Your task to perform on an android device: Search for "razer blade" on newegg.com, select the first entry, add it to the cart, then select checkout. Image 0: 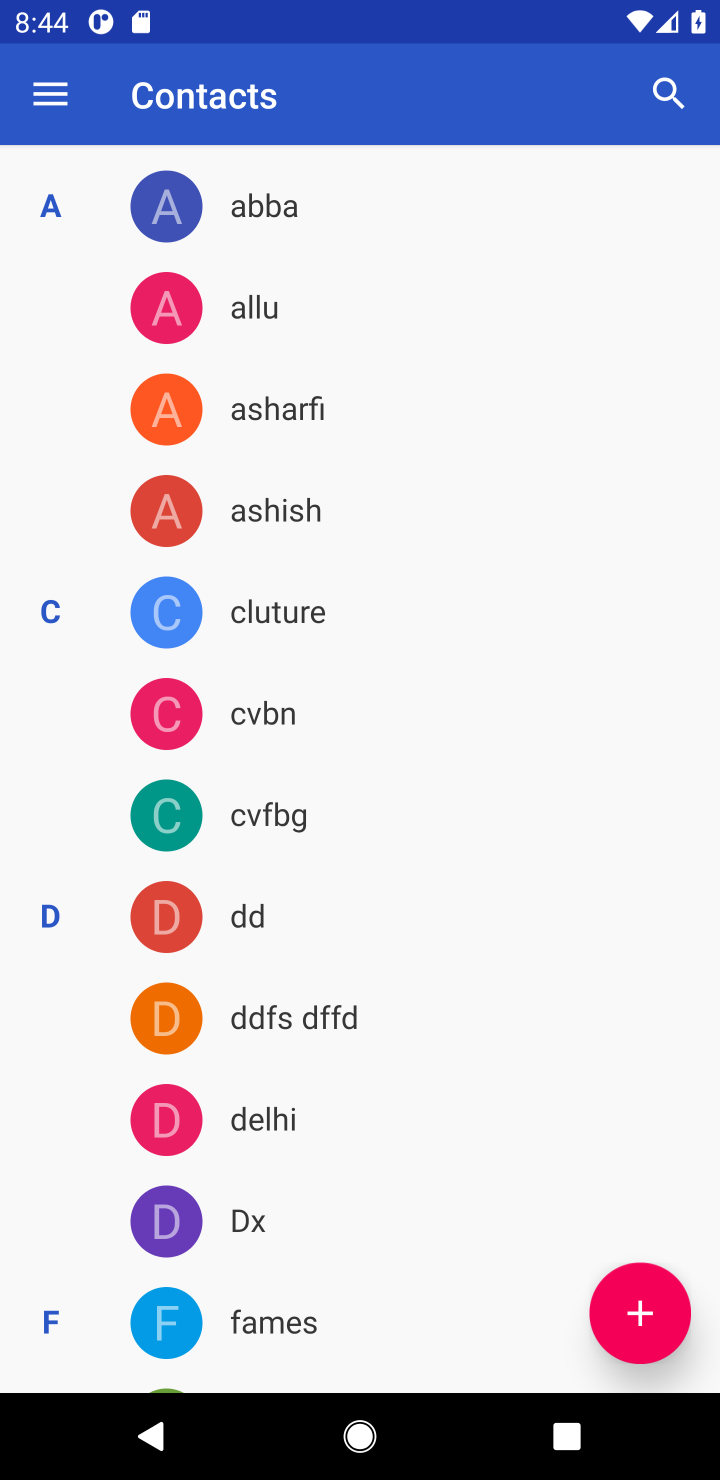
Step 0: press home button
Your task to perform on an android device: Search for "razer blade" on newegg.com, select the first entry, add it to the cart, then select checkout. Image 1: 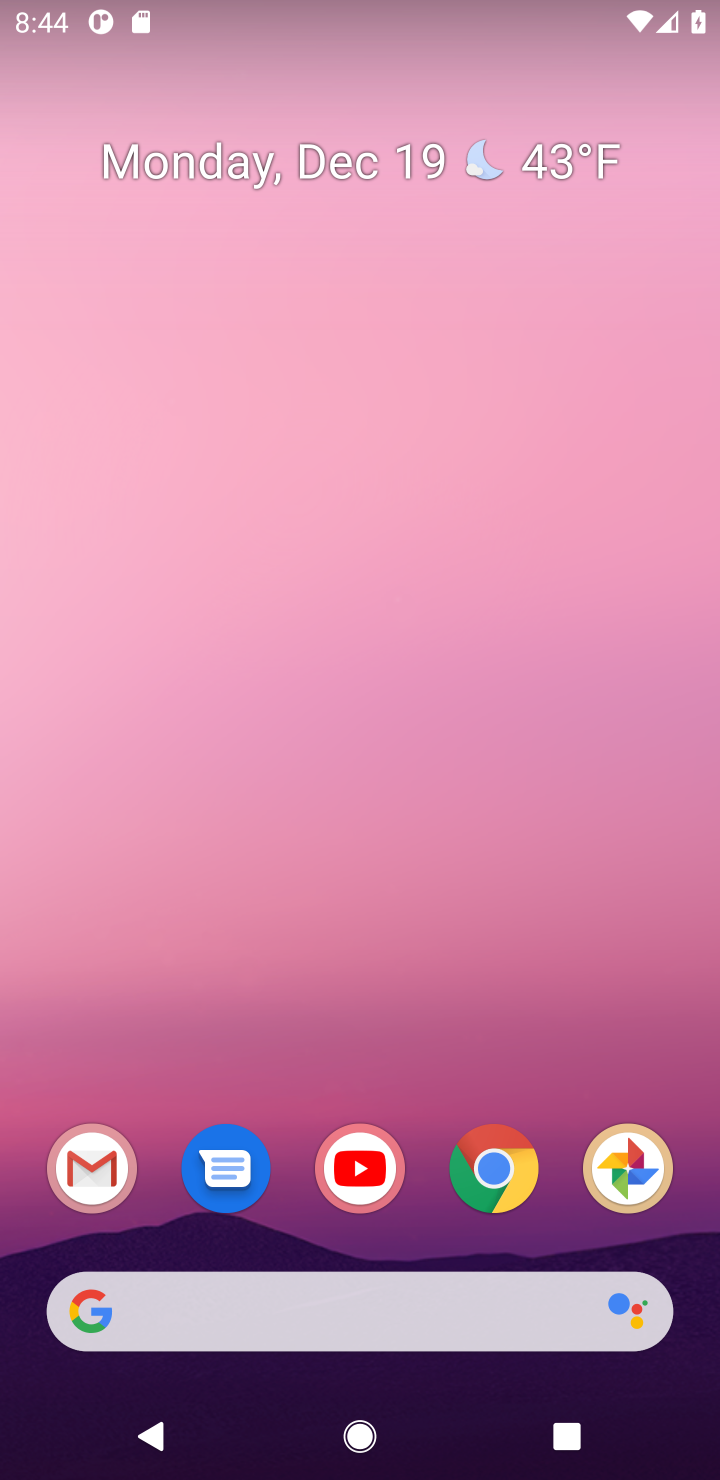
Step 1: click (491, 1191)
Your task to perform on an android device: Search for "razer blade" on newegg.com, select the first entry, add it to the cart, then select checkout. Image 2: 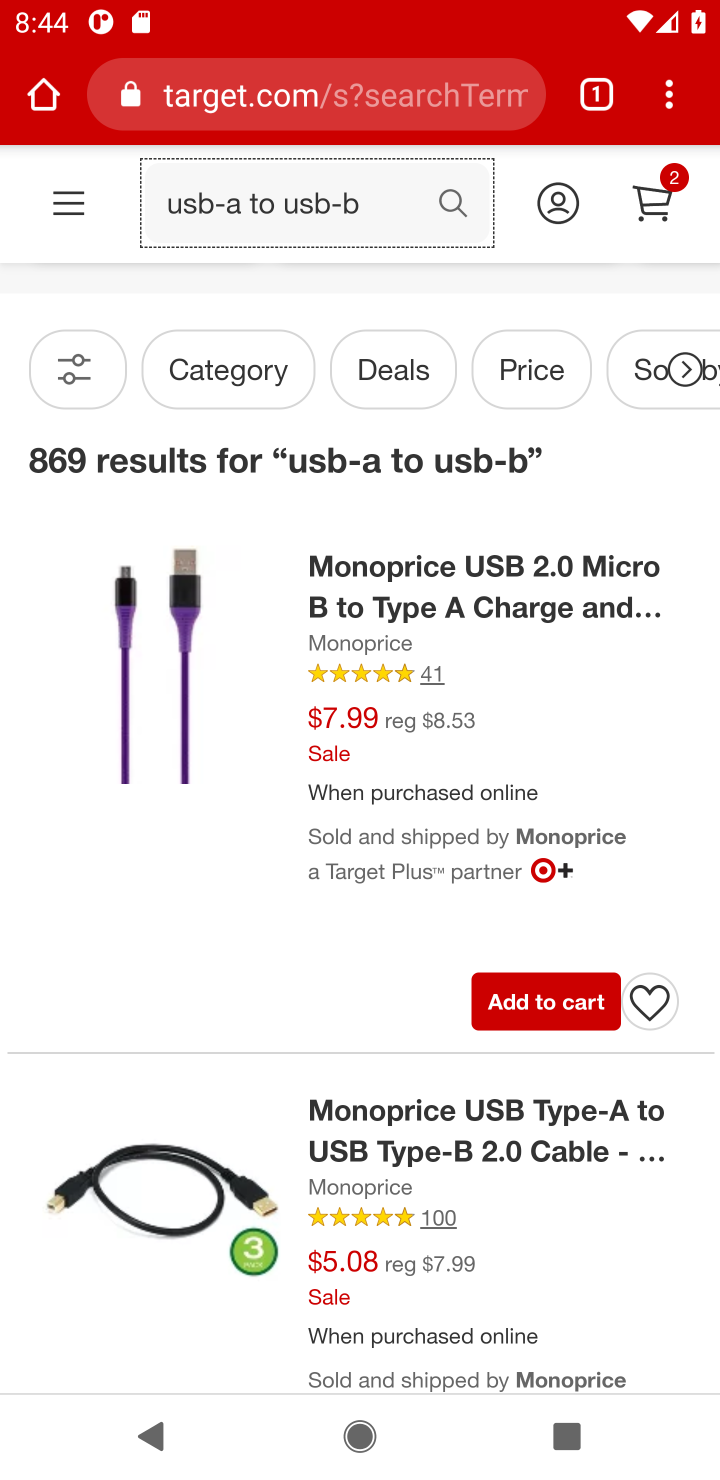
Step 2: click (223, 106)
Your task to perform on an android device: Search for "razer blade" on newegg.com, select the first entry, add it to the cart, then select checkout. Image 3: 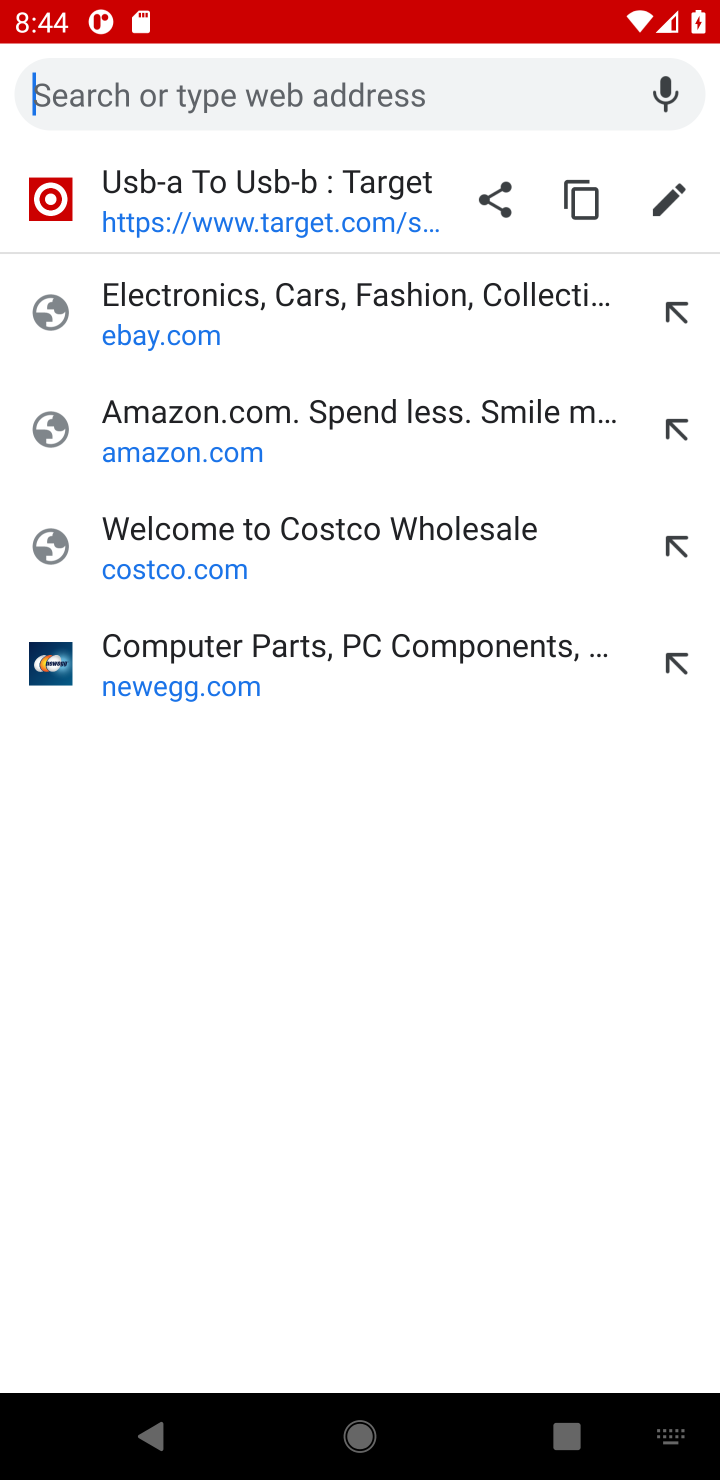
Step 3: click (197, 684)
Your task to perform on an android device: Search for "razer blade" on newegg.com, select the first entry, add it to the cart, then select checkout. Image 4: 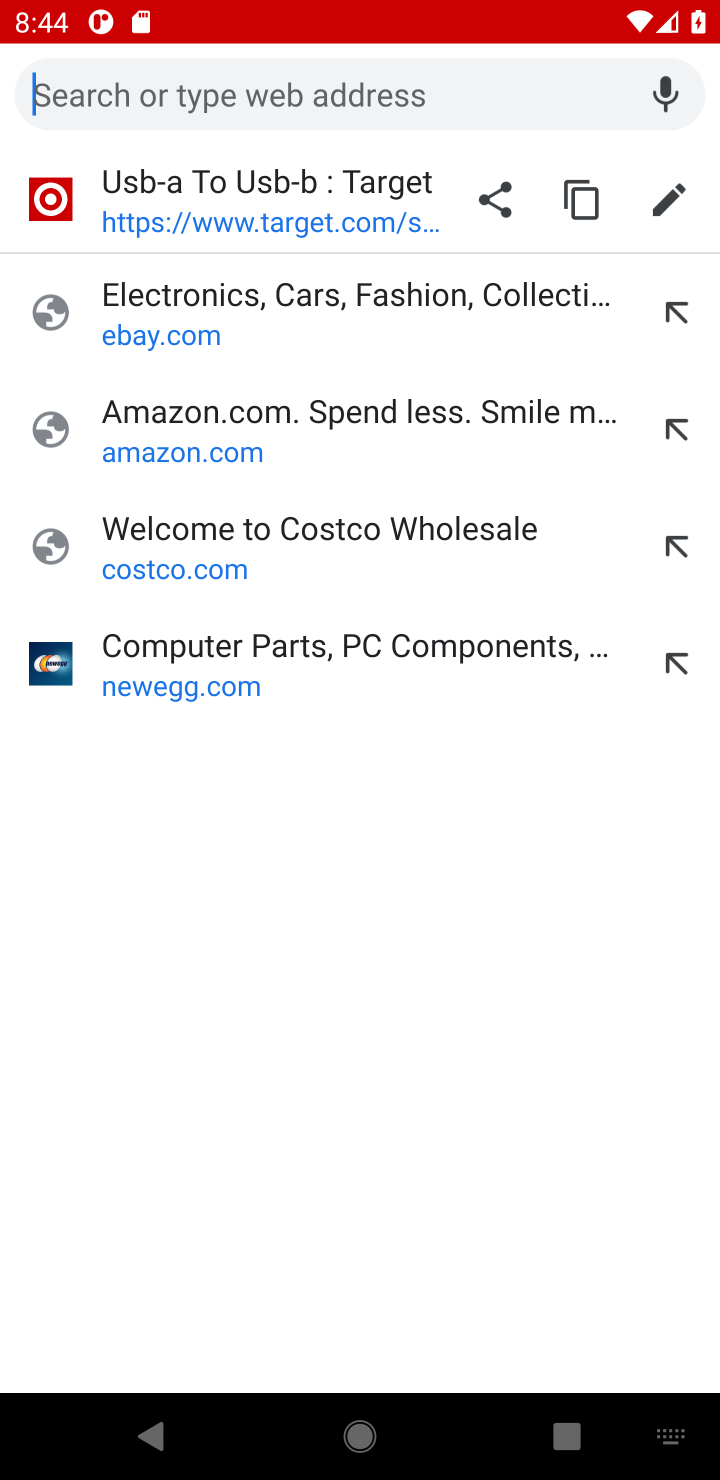
Step 4: click (163, 691)
Your task to perform on an android device: Search for "razer blade" on newegg.com, select the first entry, add it to the cart, then select checkout. Image 5: 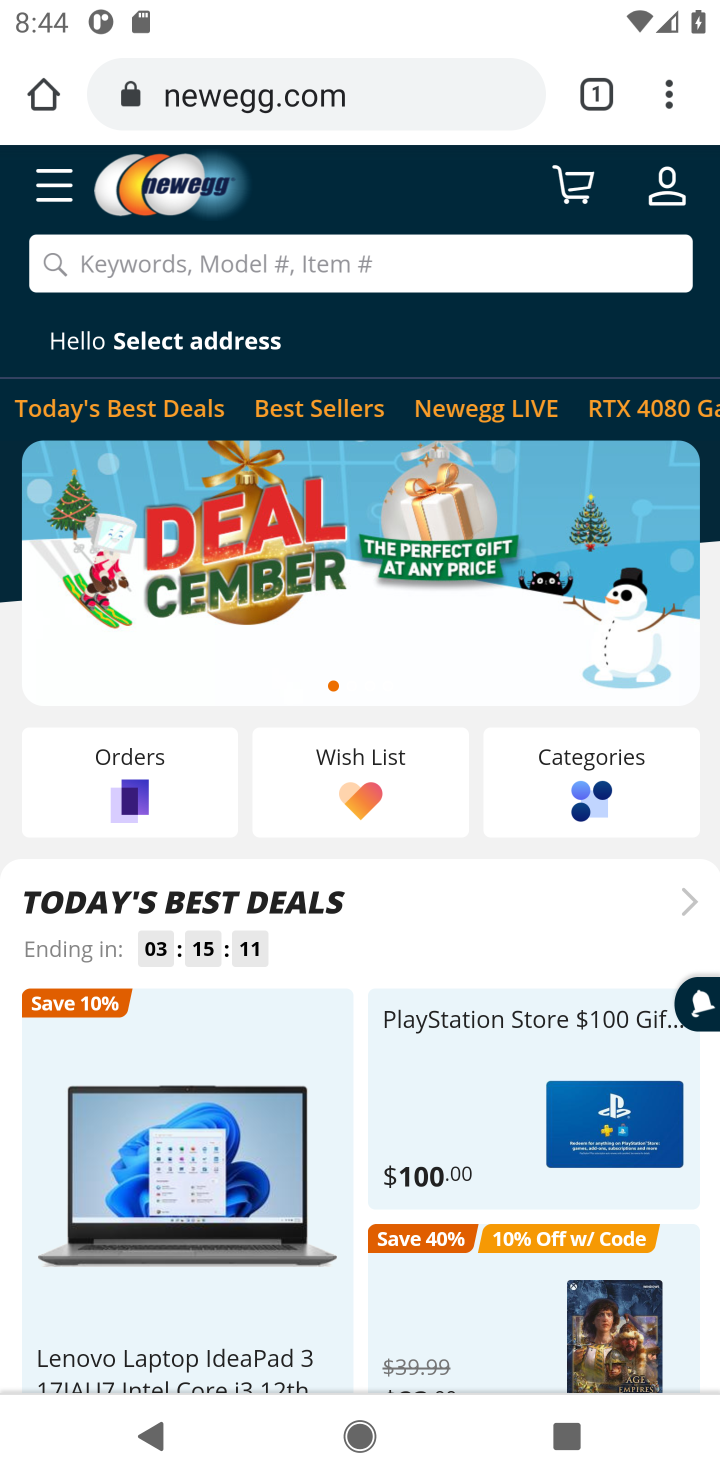
Step 5: click (271, 261)
Your task to perform on an android device: Search for "razer blade" on newegg.com, select the first entry, add it to the cart, then select checkout. Image 6: 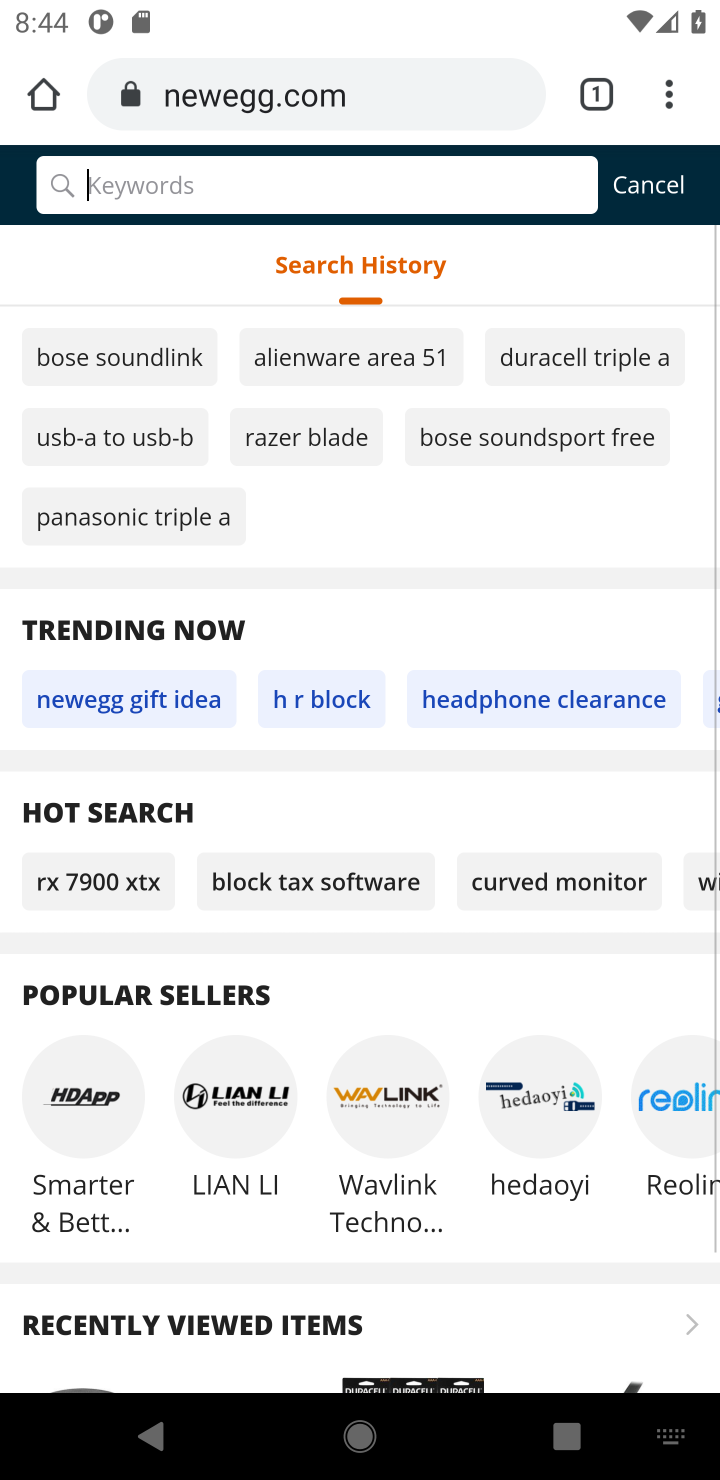
Step 6: type "razer blade"
Your task to perform on an android device: Search for "razer blade" on newegg.com, select the first entry, add it to the cart, then select checkout. Image 7: 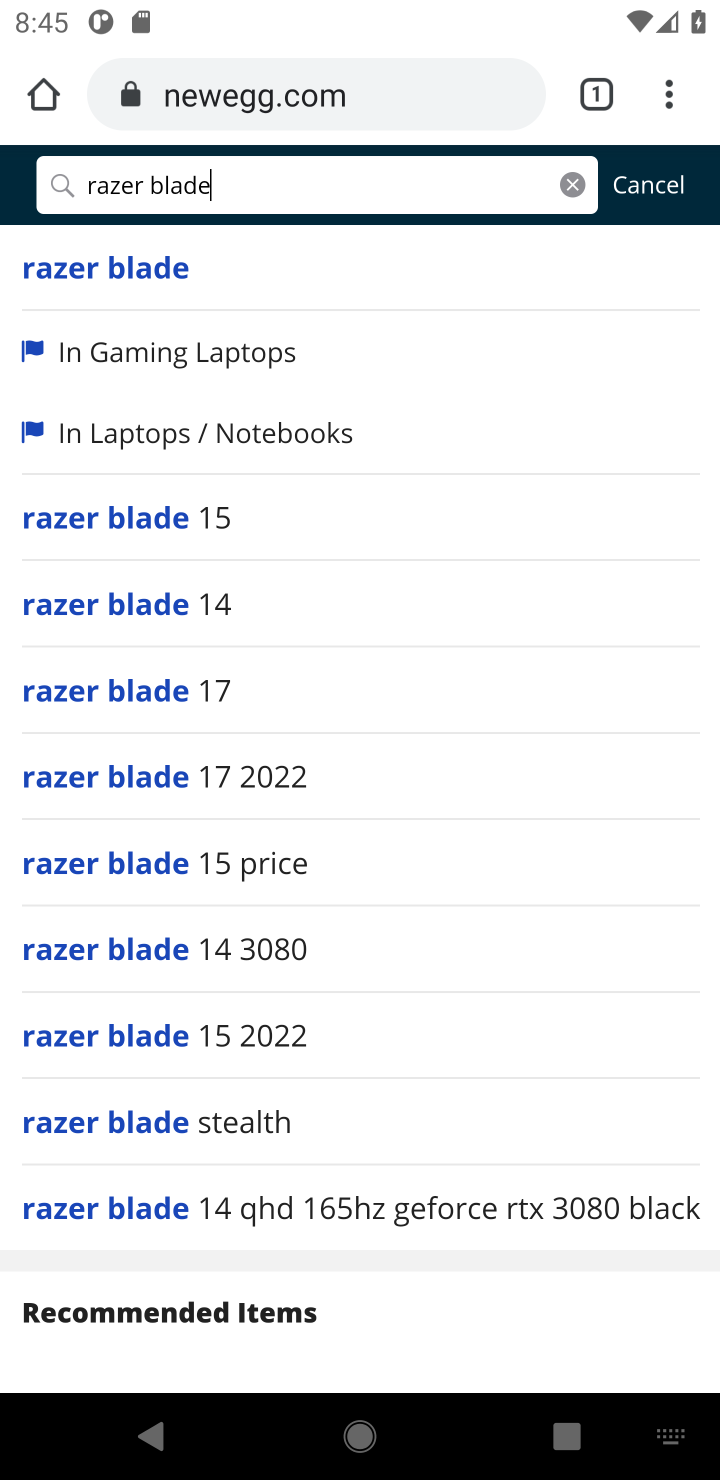
Step 7: click (111, 281)
Your task to perform on an android device: Search for "razer blade" on newegg.com, select the first entry, add it to the cart, then select checkout. Image 8: 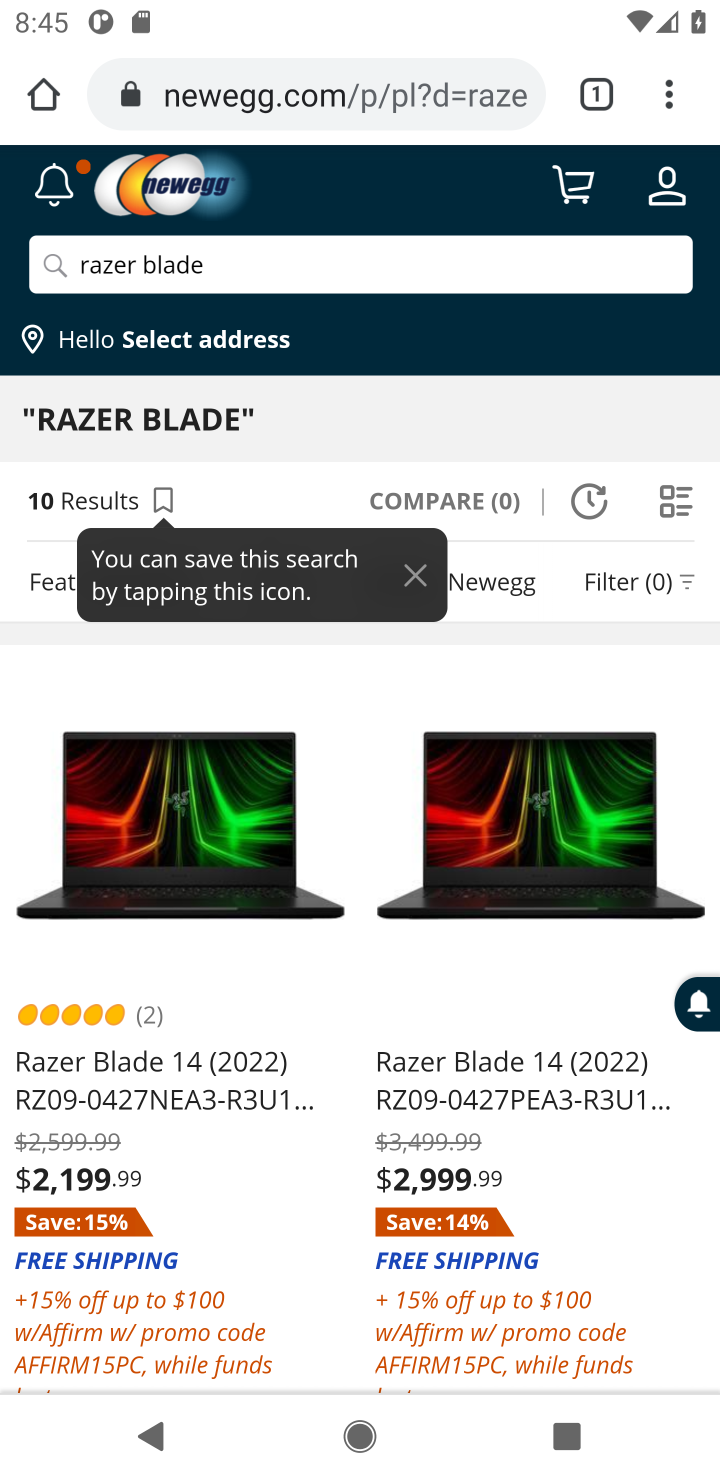
Step 8: click (93, 1068)
Your task to perform on an android device: Search for "razer blade" on newegg.com, select the first entry, add it to the cart, then select checkout. Image 9: 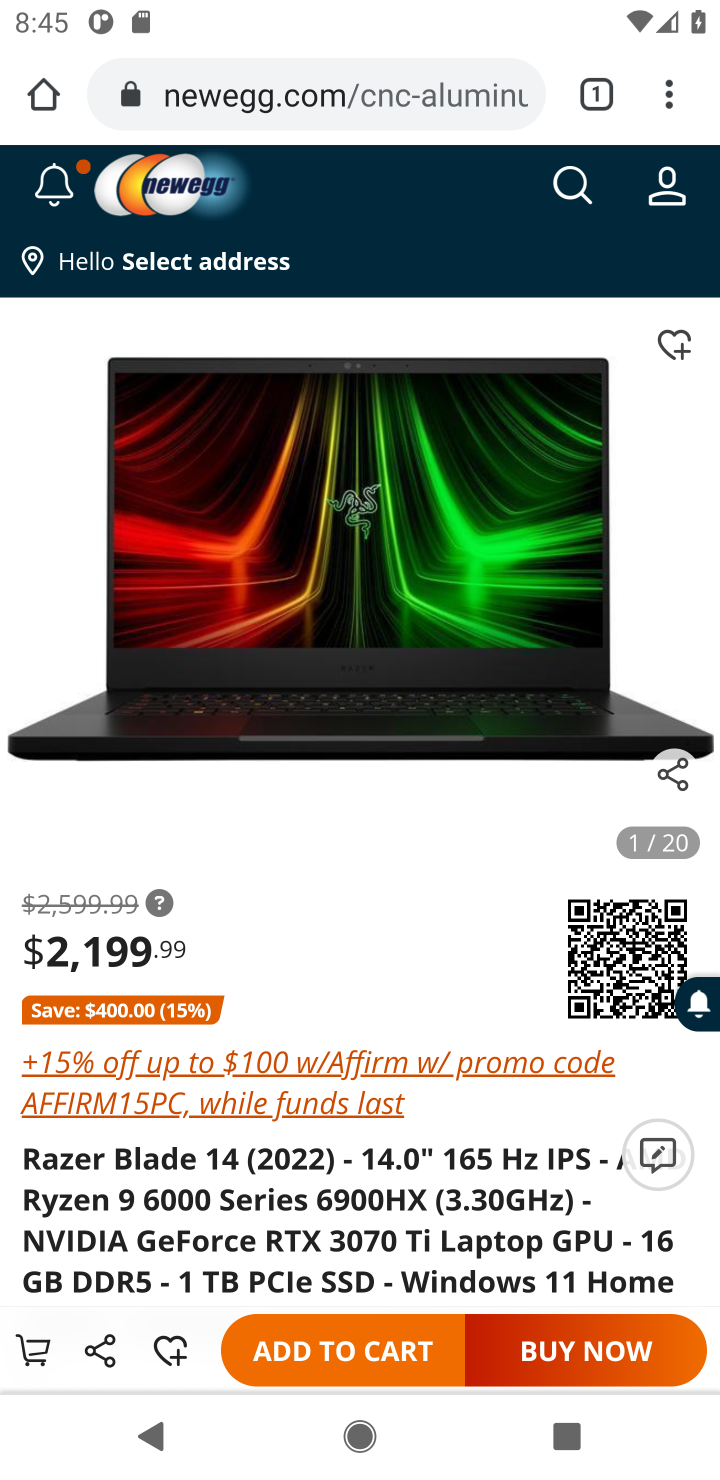
Step 9: click (316, 1348)
Your task to perform on an android device: Search for "razer blade" on newegg.com, select the first entry, add it to the cart, then select checkout. Image 10: 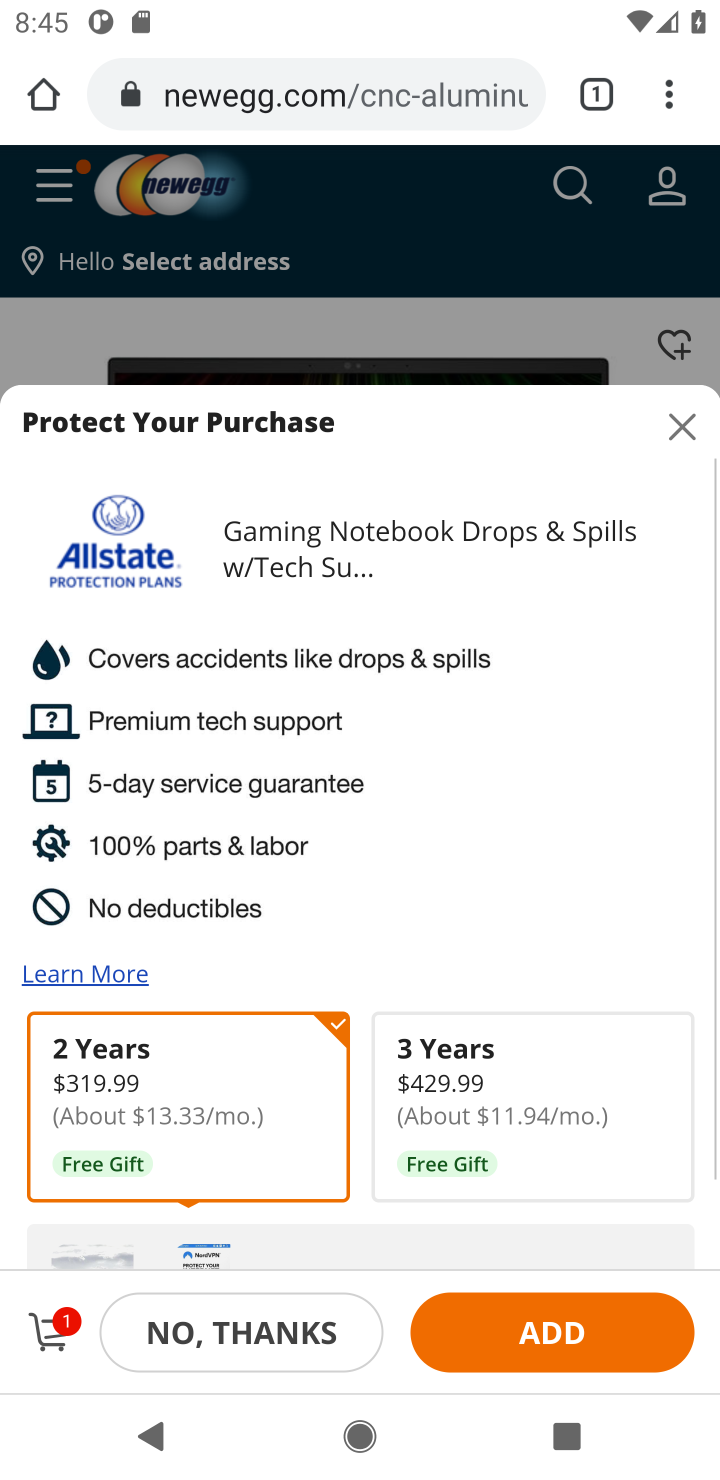
Step 10: click (54, 1333)
Your task to perform on an android device: Search for "razer blade" on newegg.com, select the first entry, add it to the cart, then select checkout. Image 11: 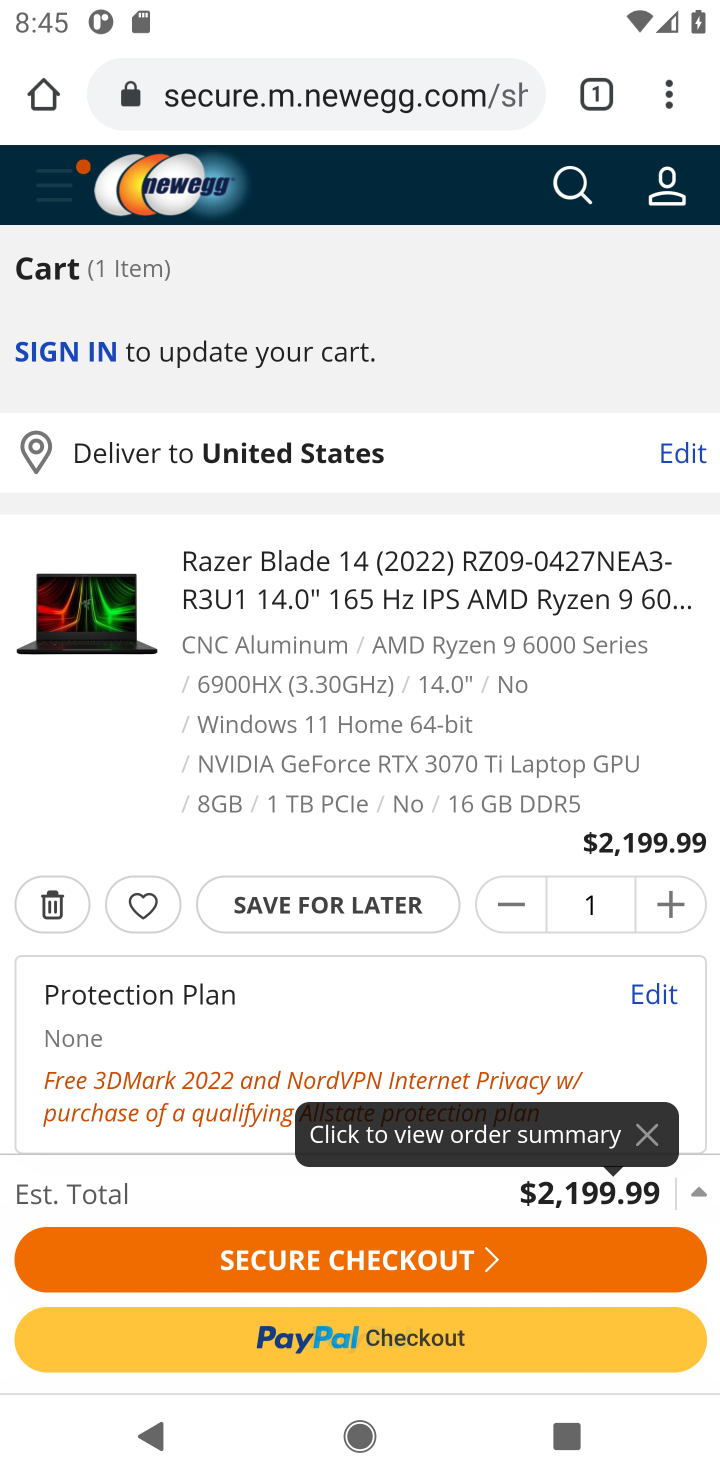
Step 11: click (302, 1262)
Your task to perform on an android device: Search for "razer blade" on newegg.com, select the first entry, add it to the cart, then select checkout. Image 12: 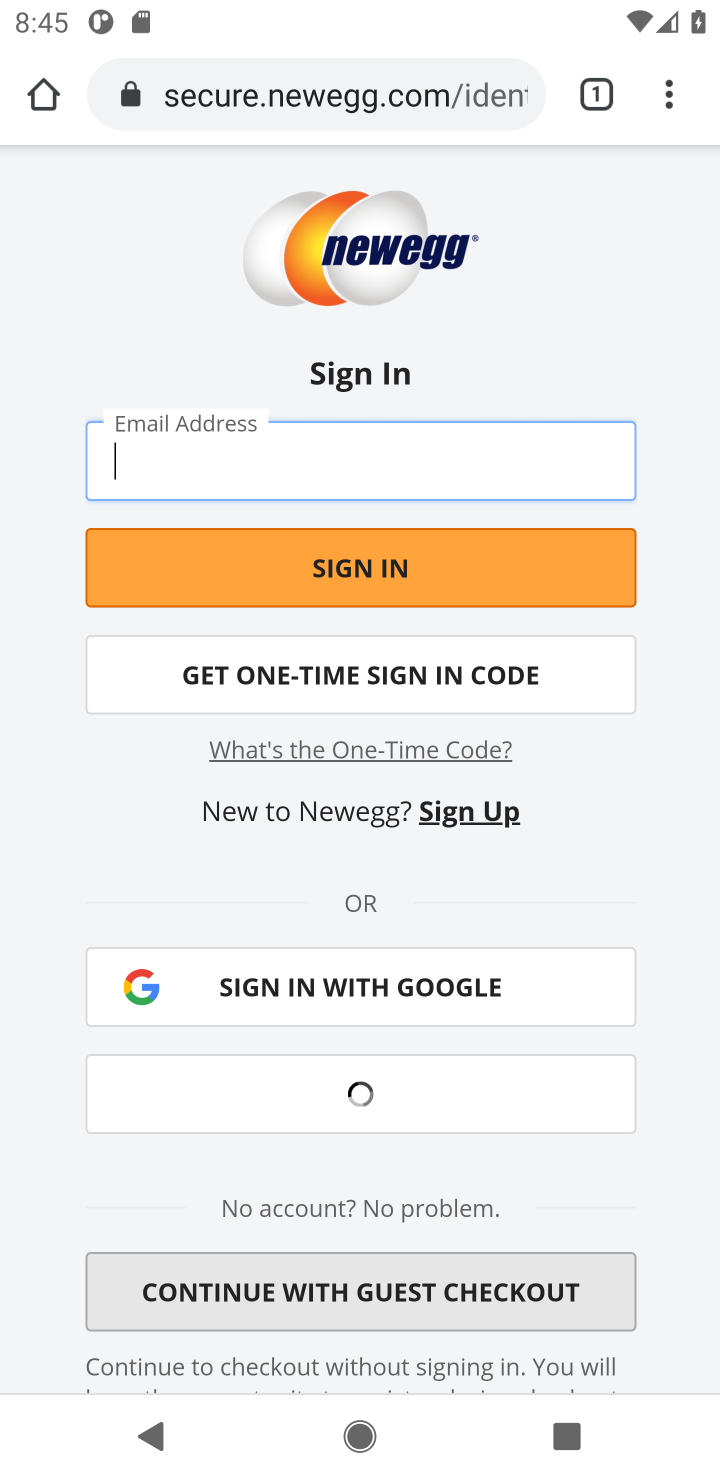
Step 12: task complete